Your task to perform on an android device: Open Wikipedia Image 0: 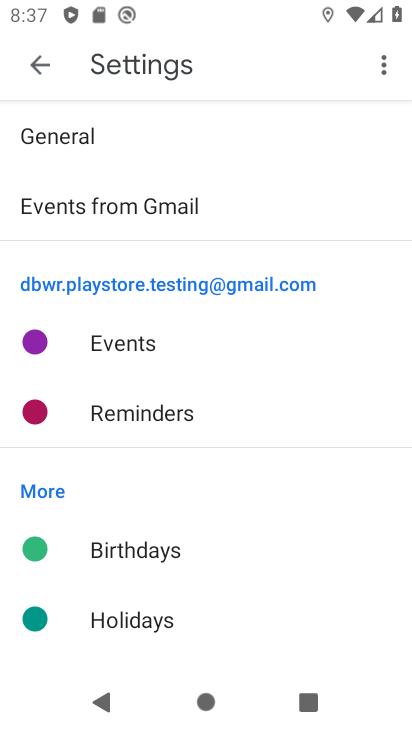
Step 0: press home button
Your task to perform on an android device: Open Wikipedia Image 1: 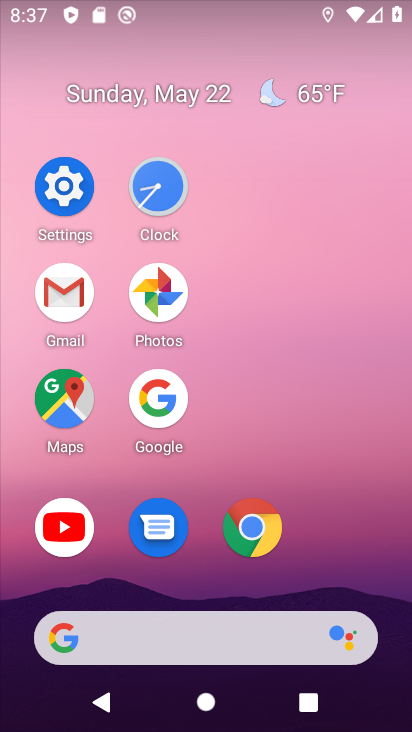
Step 1: click (256, 531)
Your task to perform on an android device: Open Wikipedia Image 2: 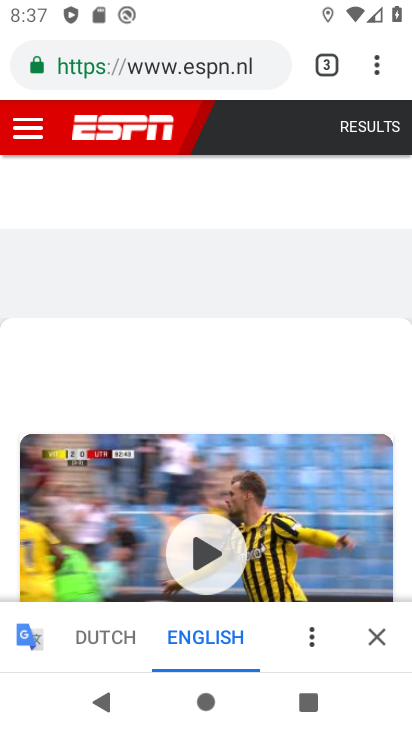
Step 2: click (337, 59)
Your task to perform on an android device: Open Wikipedia Image 3: 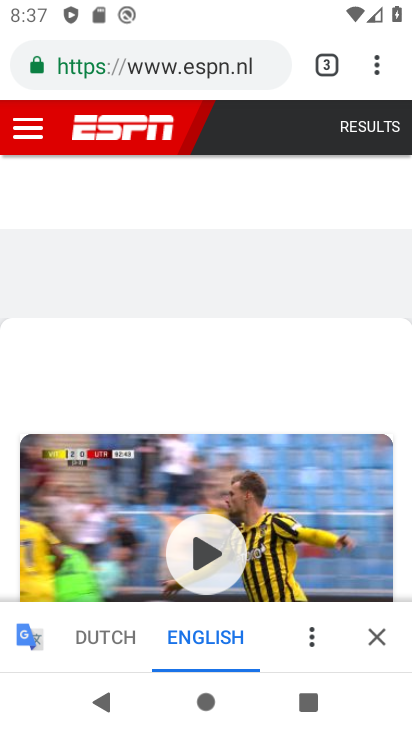
Step 3: click (330, 70)
Your task to perform on an android device: Open Wikipedia Image 4: 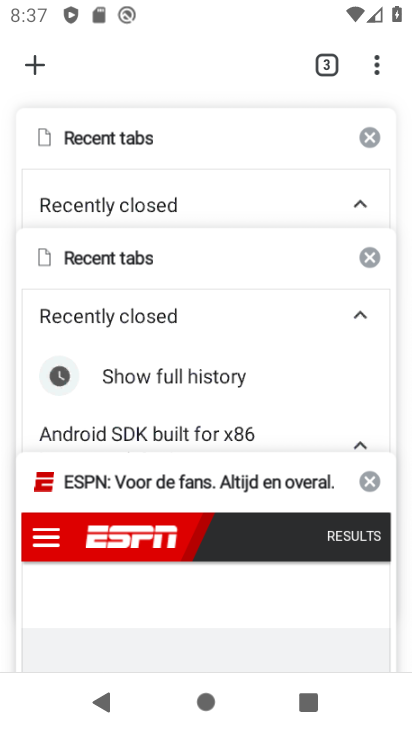
Step 4: click (24, 52)
Your task to perform on an android device: Open Wikipedia Image 5: 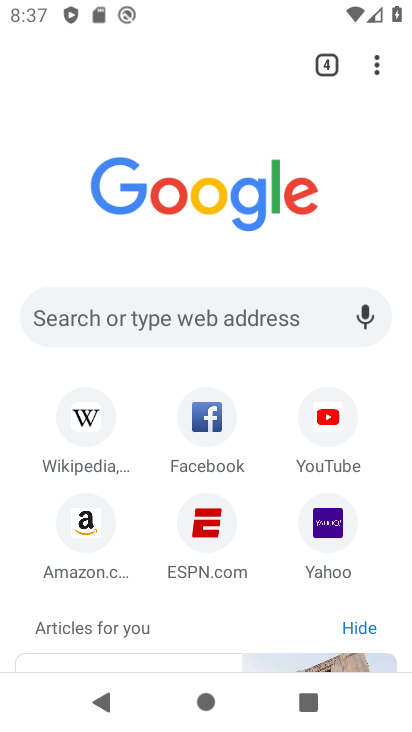
Step 5: click (91, 427)
Your task to perform on an android device: Open Wikipedia Image 6: 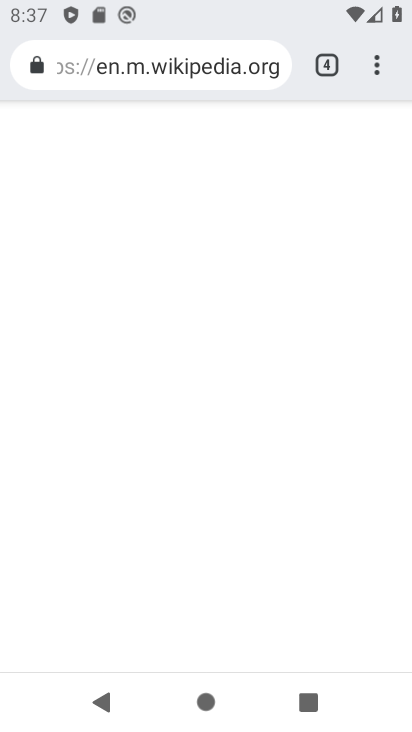
Step 6: task complete